Your task to perform on an android device: turn off data saver in the chrome app Image 0: 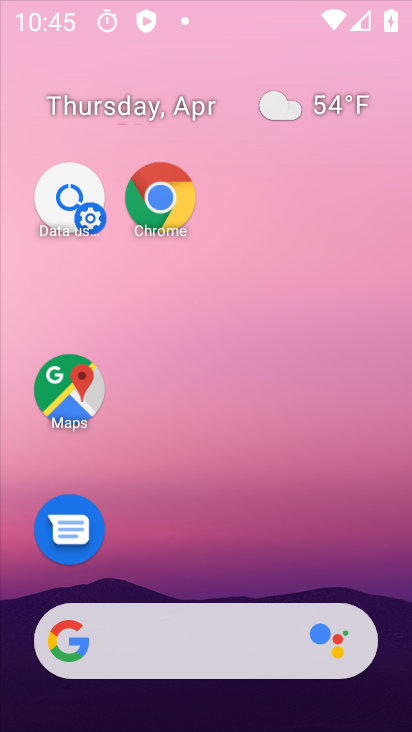
Step 0: drag from (208, 589) to (208, 49)
Your task to perform on an android device: turn off data saver in the chrome app Image 1: 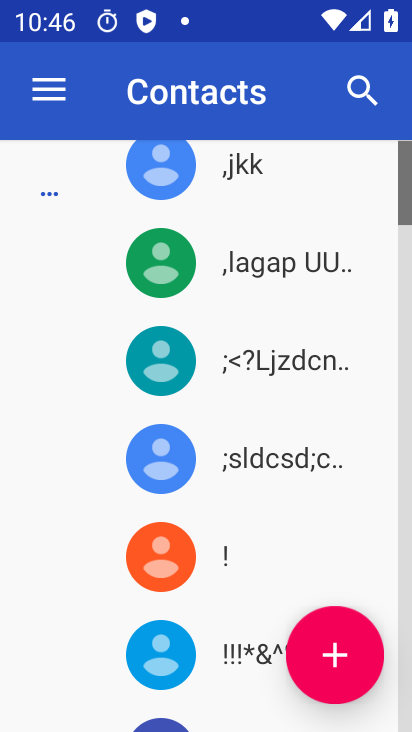
Step 1: press home button
Your task to perform on an android device: turn off data saver in the chrome app Image 2: 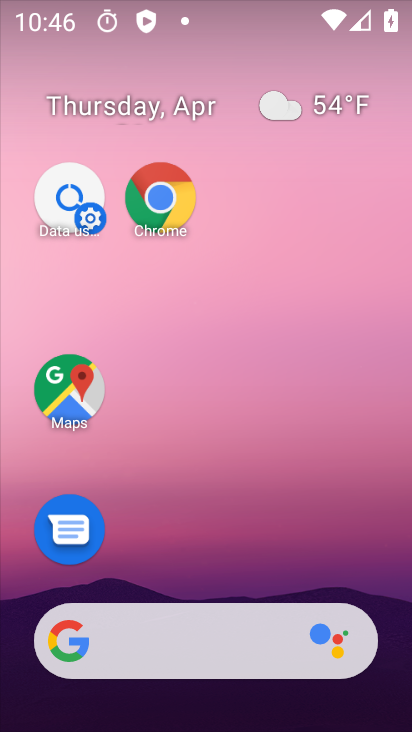
Step 2: drag from (206, 590) to (206, 62)
Your task to perform on an android device: turn off data saver in the chrome app Image 3: 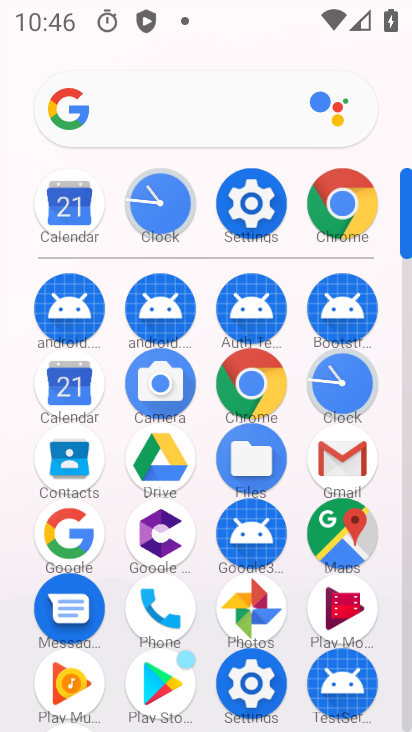
Step 3: click (259, 395)
Your task to perform on an android device: turn off data saver in the chrome app Image 4: 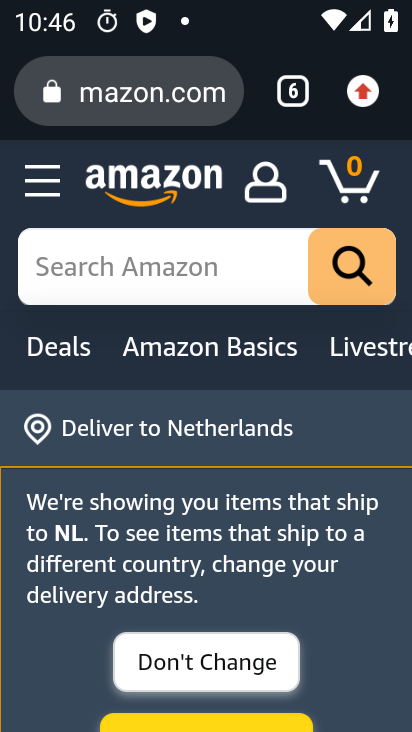
Step 4: drag from (363, 88) to (179, 578)
Your task to perform on an android device: turn off data saver in the chrome app Image 5: 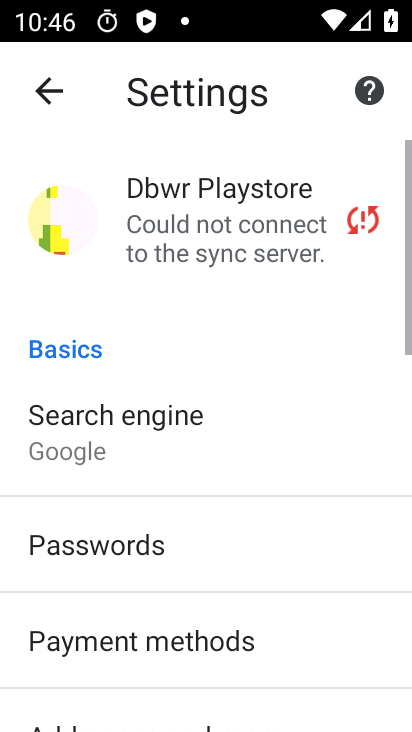
Step 5: drag from (197, 598) to (213, 139)
Your task to perform on an android device: turn off data saver in the chrome app Image 6: 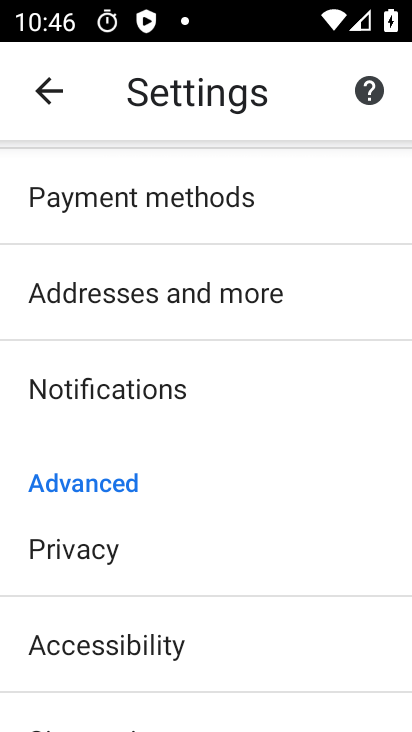
Step 6: drag from (185, 630) to (185, 267)
Your task to perform on an android device: turn off data saver in the chrome app Image 7: 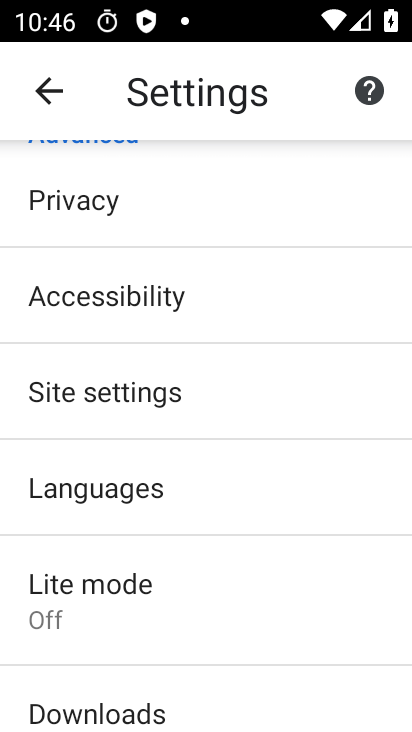
Step 7: click (134, 608)
Your task to perform on an android device: turn off data saver in the chrome app Image 8: 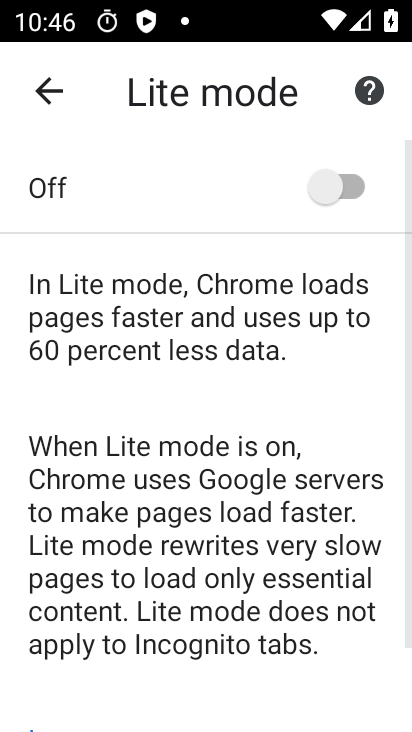
Step 8: task complete